Your task to perform on an android device: open a bookmark in the chrome app Image 0: 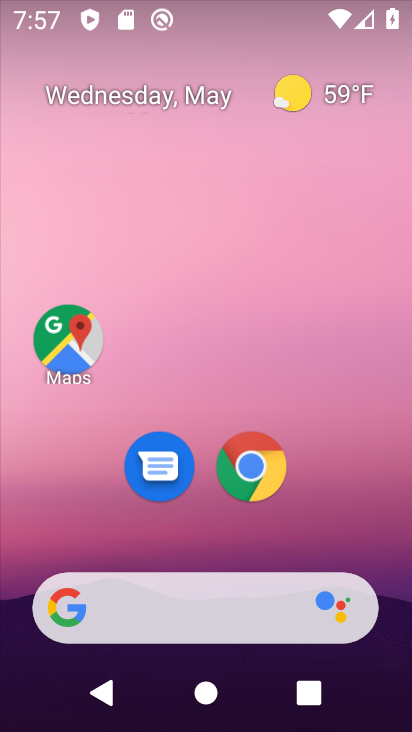
Step 0: drag from (270, 513) to (283, 227)
Your task to perform on an android device: open a bookmark in the chrome app Image 1: 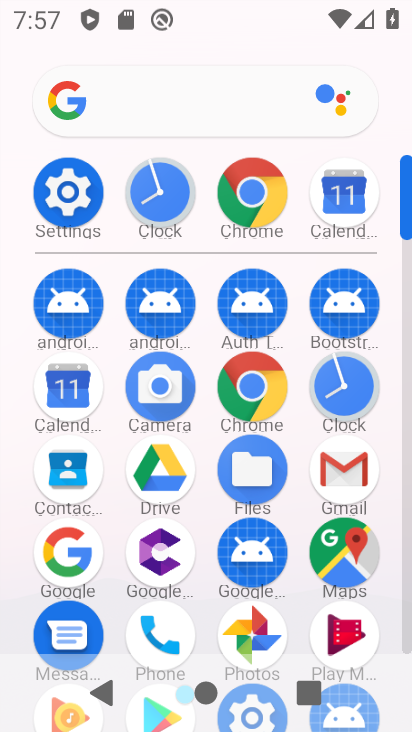
Step 1: click (249, 187)
Your task to perform on an android device: open a bookmark in the chrome app Image 2: 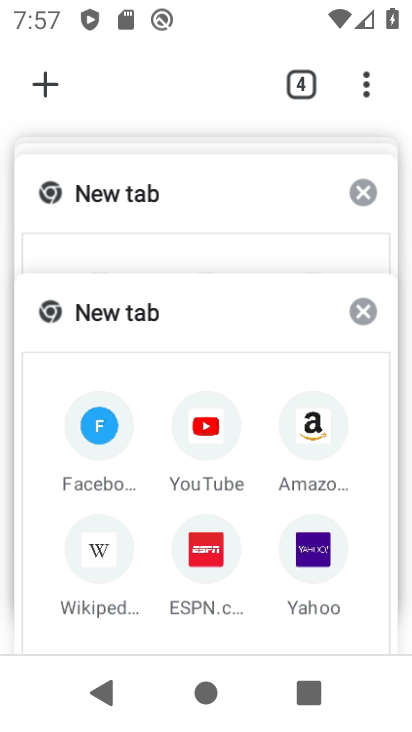
Step 2: click (356, 84)
Your task to perform on an android device: open a bookmark in the chrome app Image 3: 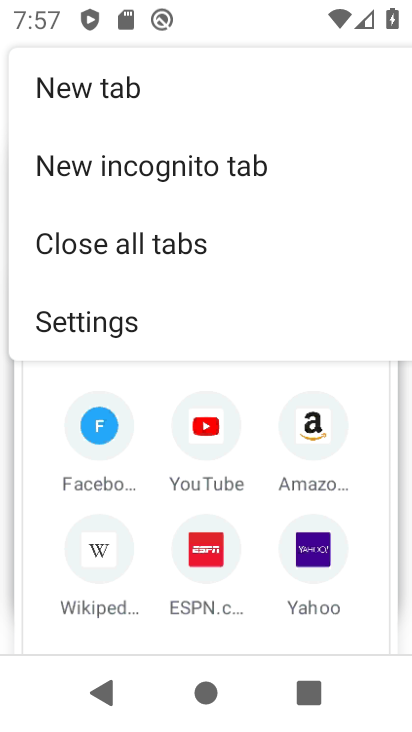
Step 3: click (123, 330)
Your task to perform on an android device: open a bookmark in the chrome app Image 4: 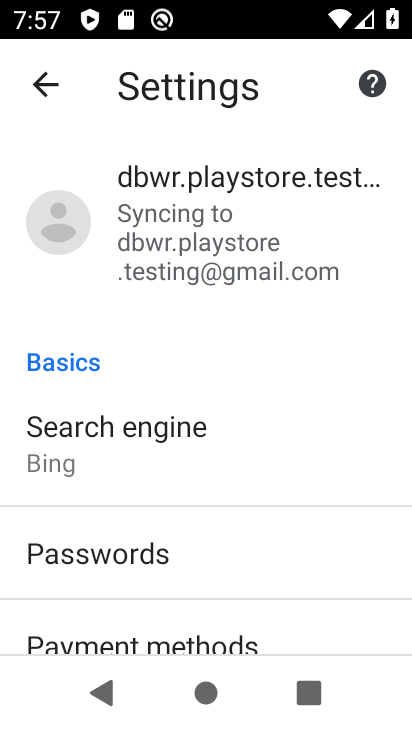
Step 4: click (41, 76)
Your task to perform on an android device: open a bookmark in the chrome app Image 5: 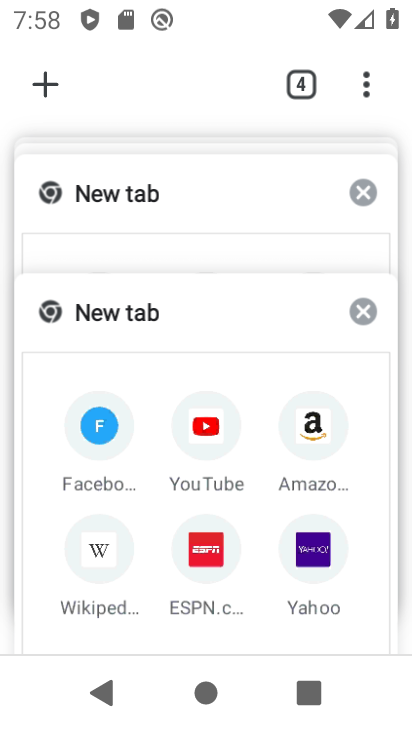
Step 5: click (213, 330)
Your task to perform on an android device: open a bookmark in the chrome app Image 6: 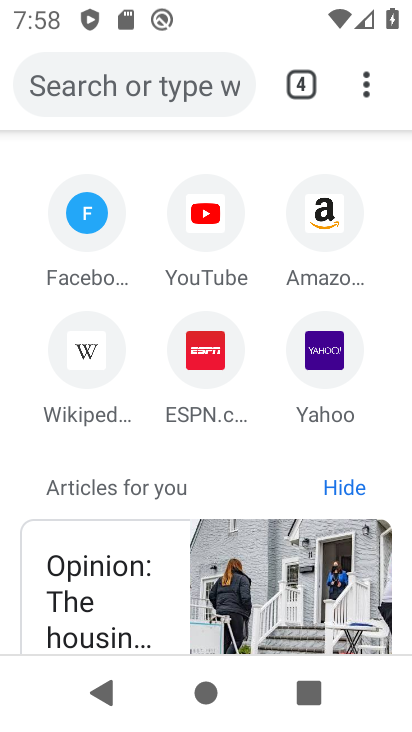
Step 6: click (353, 82)
Your task to perform on an android device: open a bookmark in the chrome app Image 7: 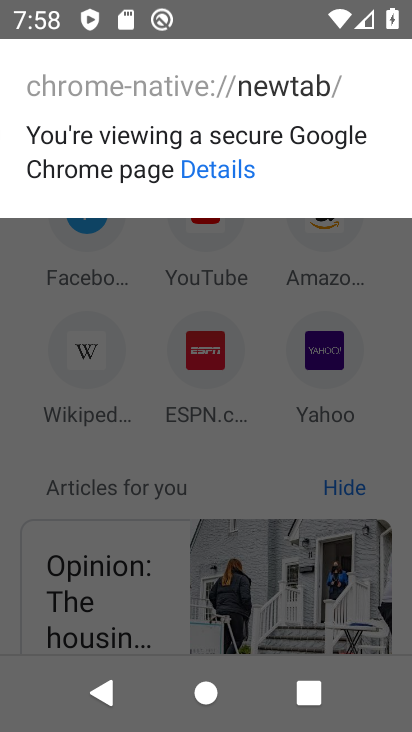
Step 7: press back button
Your task to perform on an android device: open a bookmark in the chrome app Image 8: 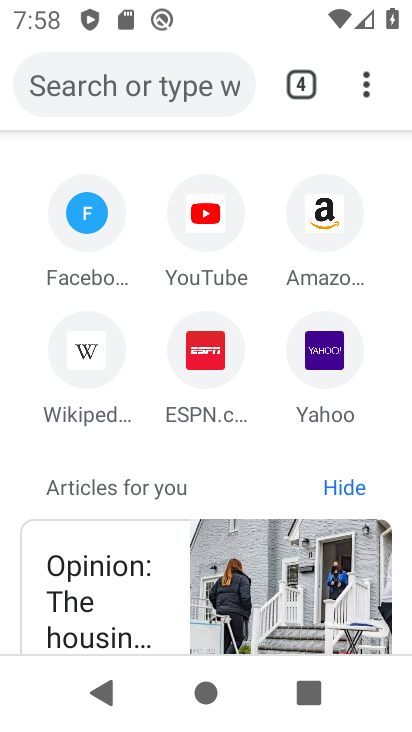
Step 8: click (374, 76)
Your task to perform on an android device: open a bookmark in the chrome app Image 9: 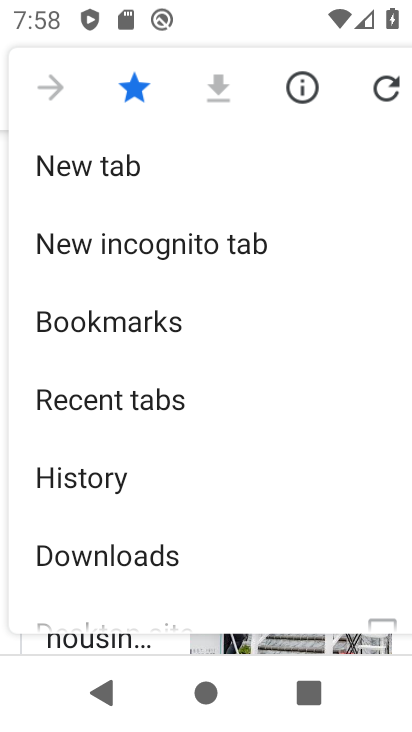
Step 9: drag from (170, 563) to (195, 345)
Your task to perform on an android device: open a bookmark in the chrome app Image 10: 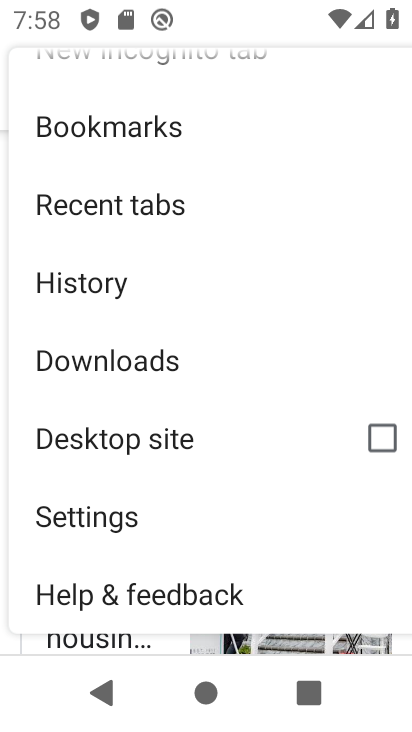
Step 10: click (121, 134)
Your task to perform on an android device: open a bookmark in the chrome app Image 11: 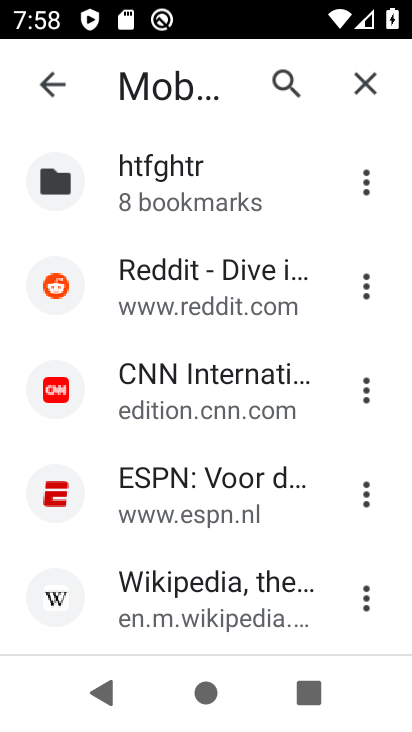
Step 11: task complete